Your task to perform on an android device: toggle javascript in the chrome app Image 0: 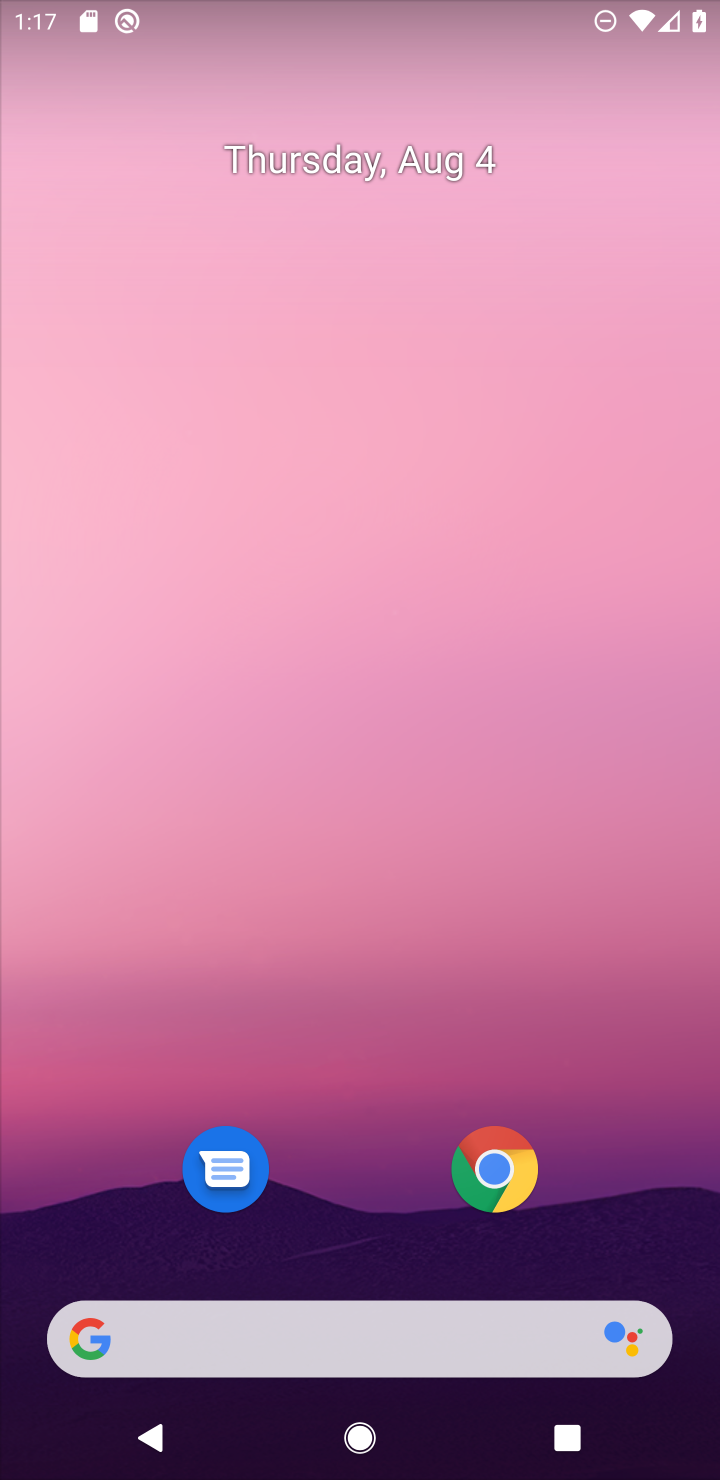
Step 0: click (497, 1181)
Your task to perform on an android device: toggle javascript in the chrome app Image 1: 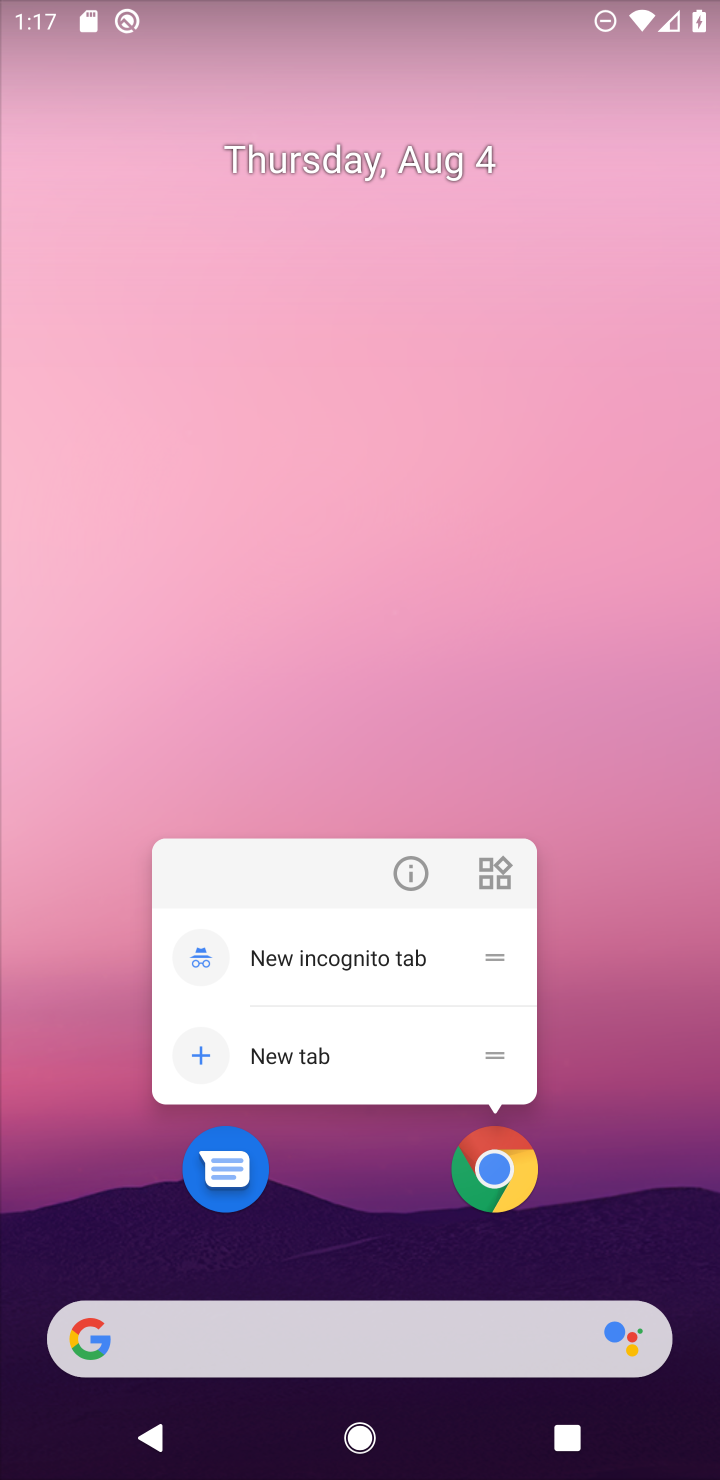
Step 1: click (492, 1175)
Your task to perform on an android device: toggle javascript in the chrome app Image 2: 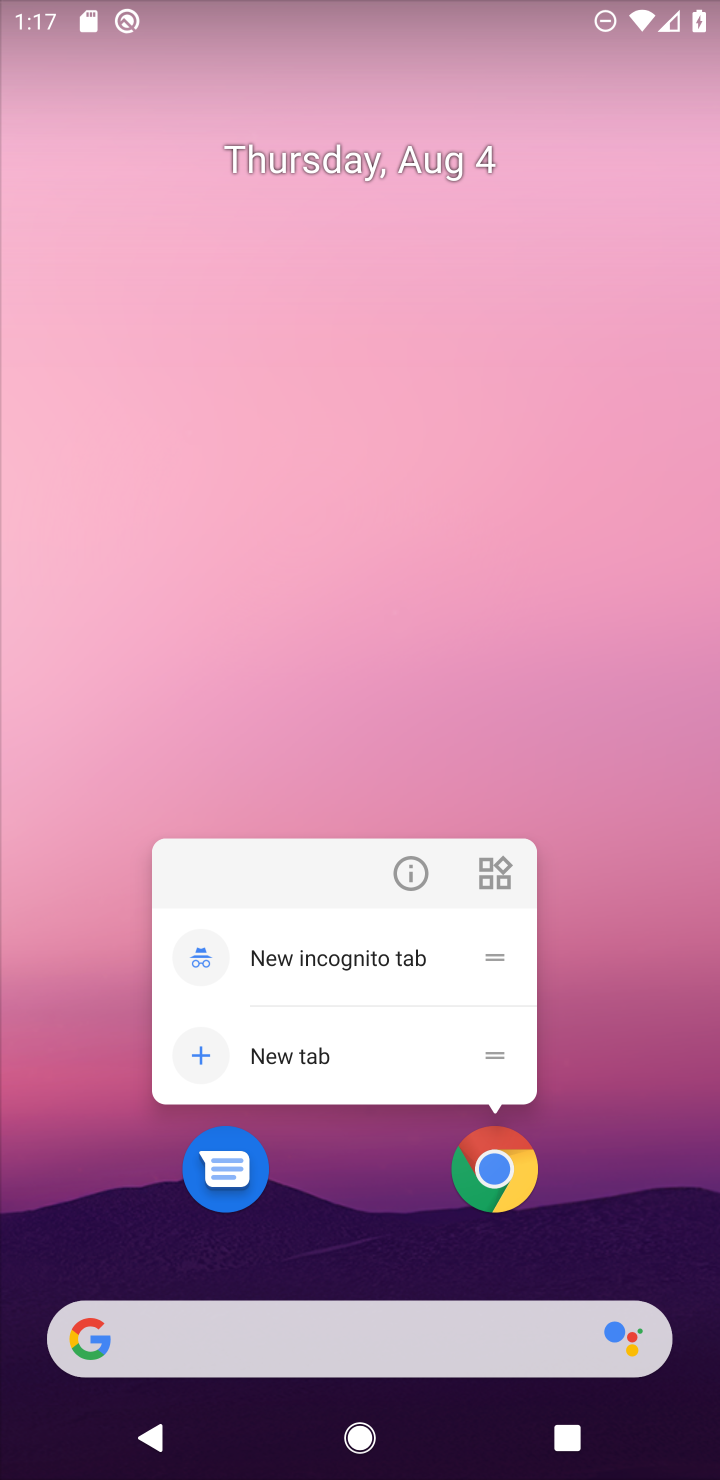
Step 2: click (492, 1175)
Your task to perform on an android device: toggle javascript in the chrome app Image 3: 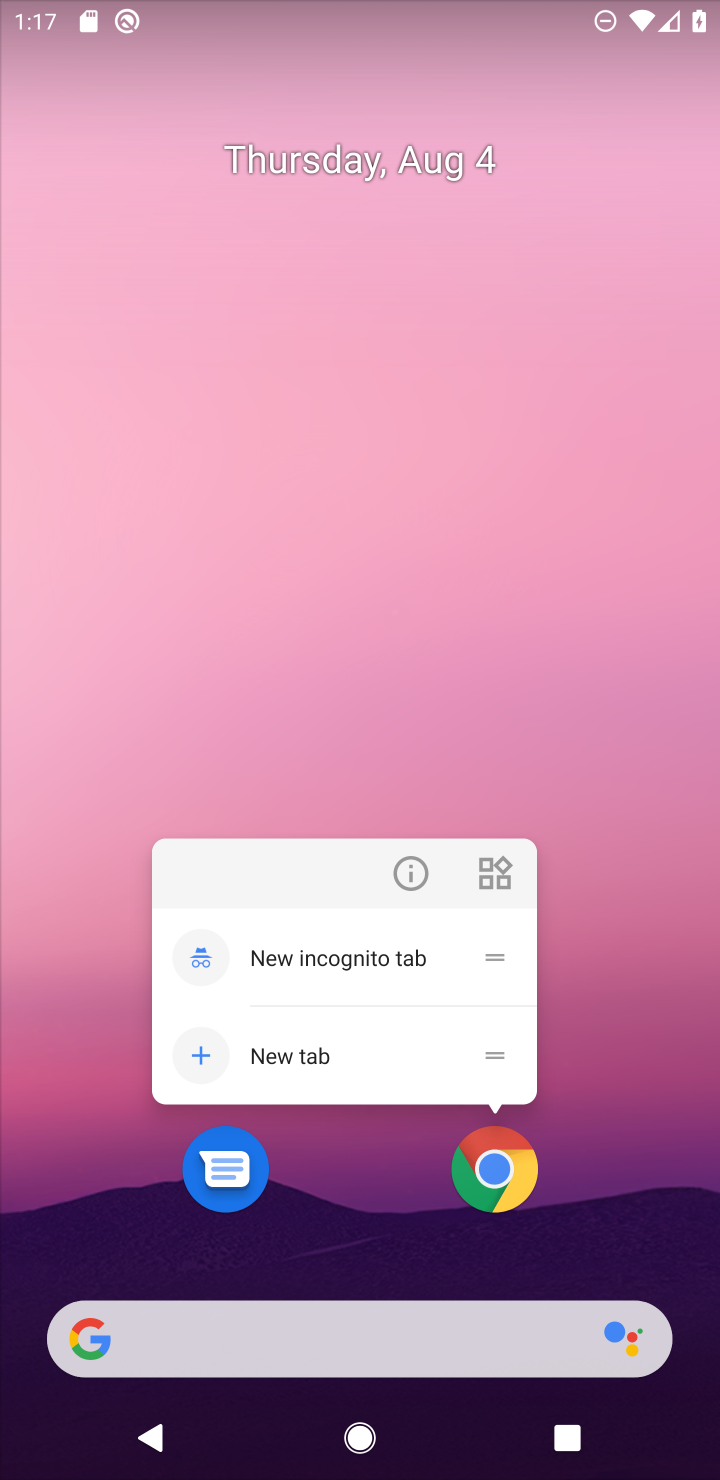
Step 3: click (492, 1175)
Your task to perform on an android device: toggle javascript in the chrome app Image 4: 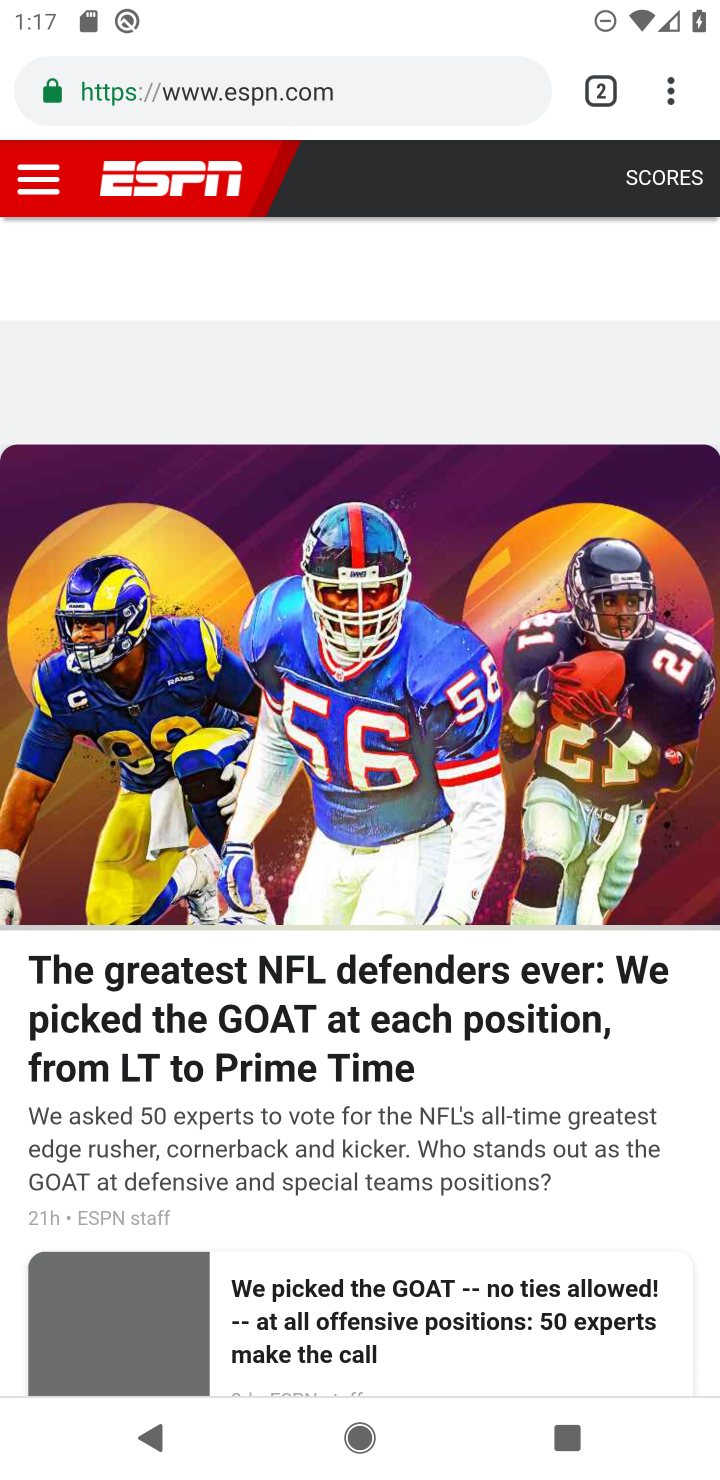
Step 4: drag from (671, 97) to (389, 1092)
Your task to perform on an android device: toggle javascript in the chrome app Image 5: 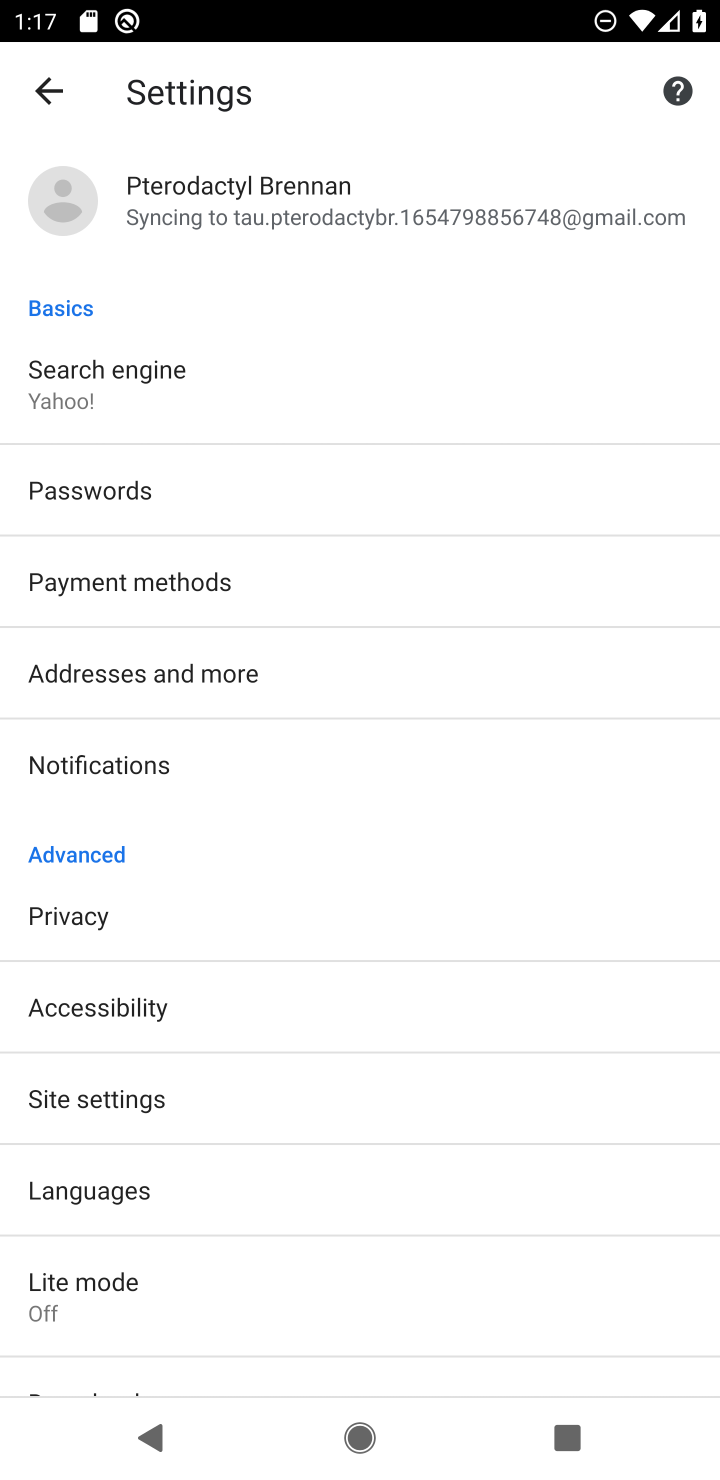
Step 5: click (110, 1105)
Your task to perform on an android device: toggle javascript in the chrome app Image 6: 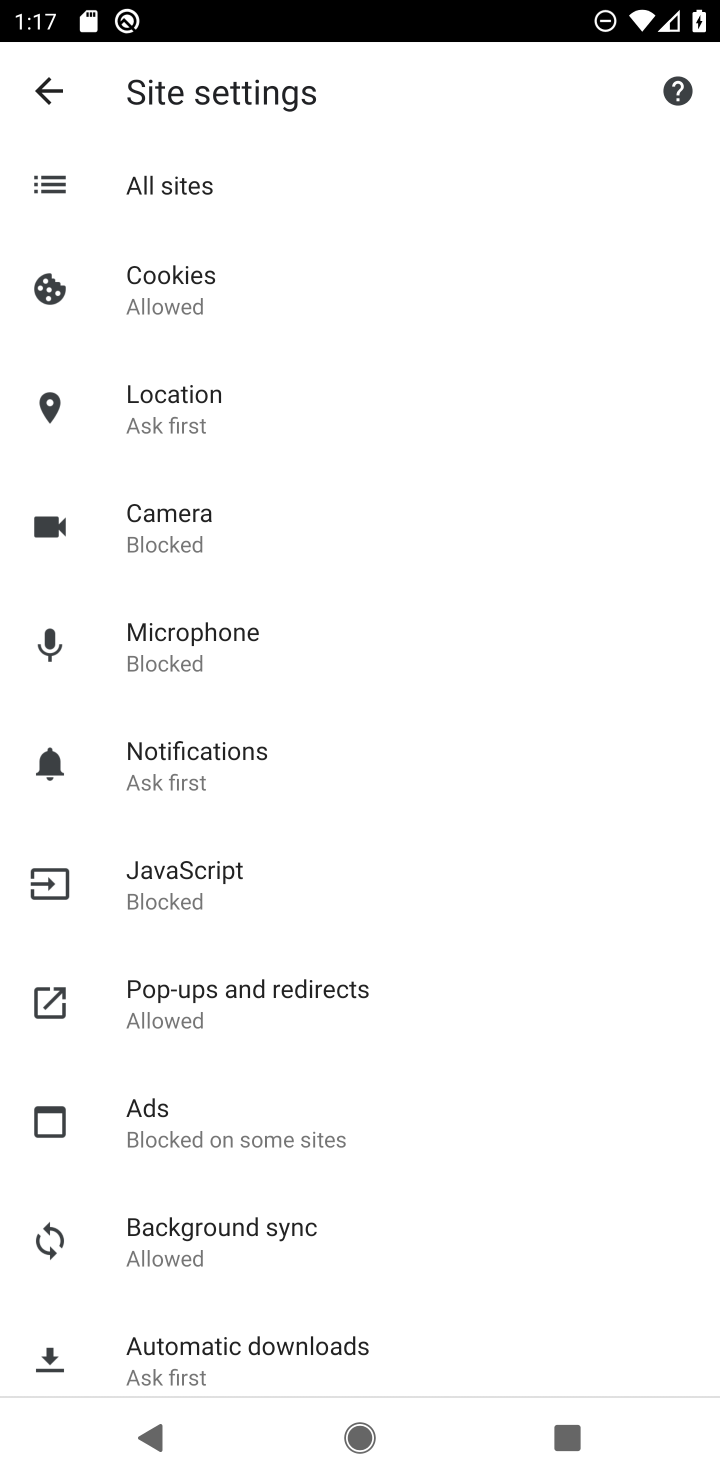
Step 6: click (163, 889)
Your task to perform on an android device: toggle javascript in the chrome app Image 7: 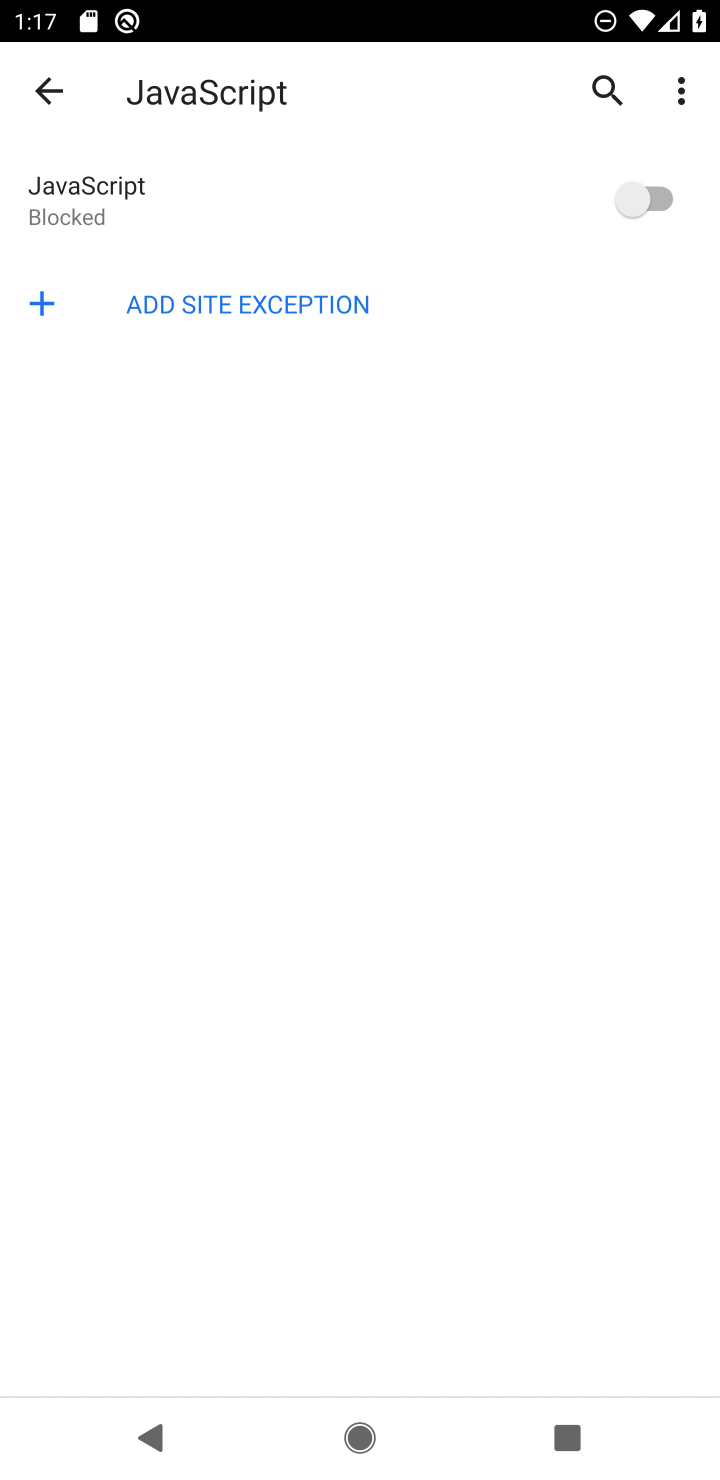
Step 7: click (656, 187)
Your task to perform on an android device: toggle javascript in the chrome app Image 8: 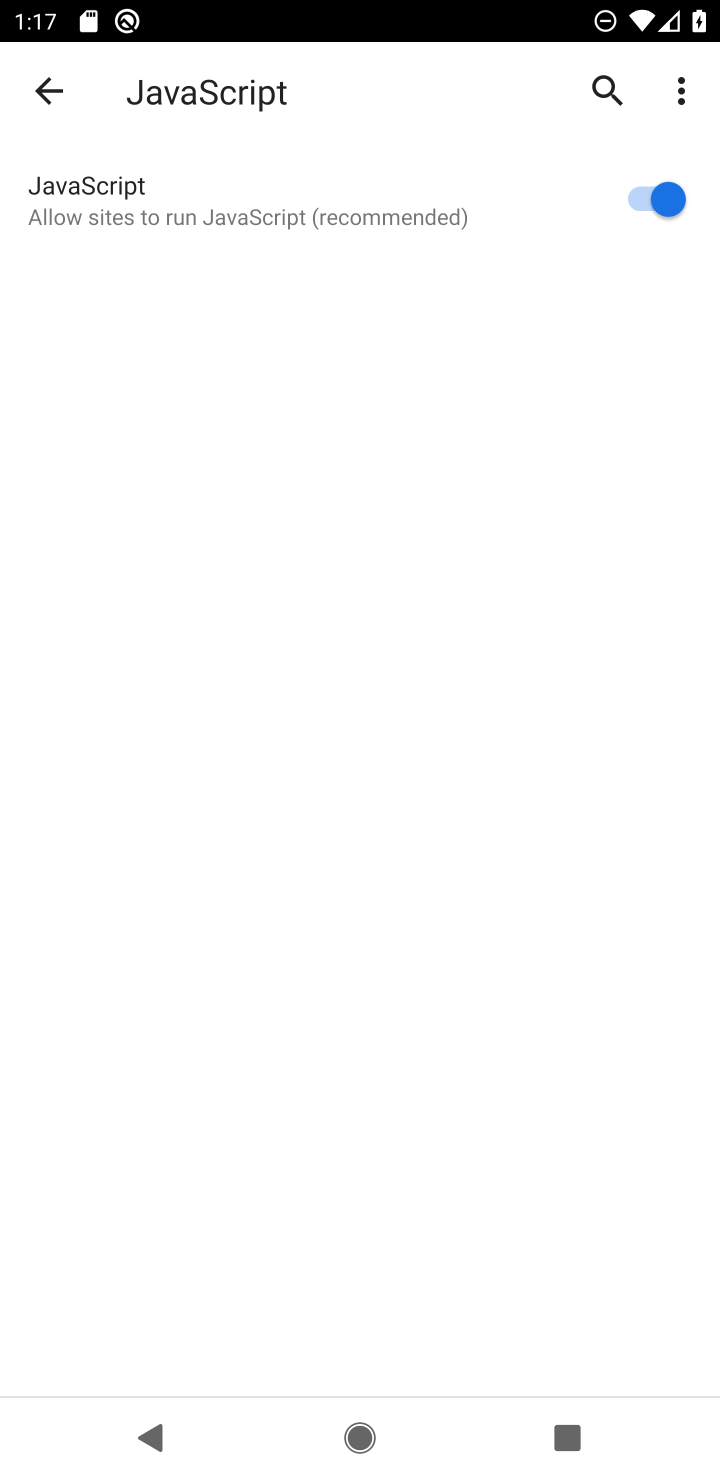
Step 8: task complete